Your task to perform on an android device: Open sound settings Image 0: 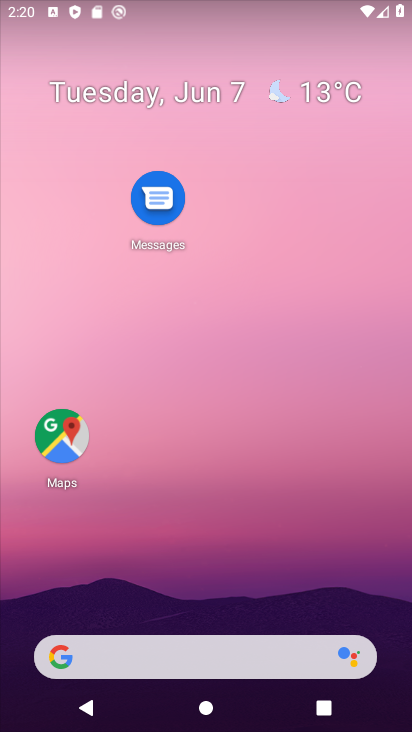
Step 0: drag from (169, 621) to (138, 118)
Your task to perform on an android device: Open sound settings Image 1: 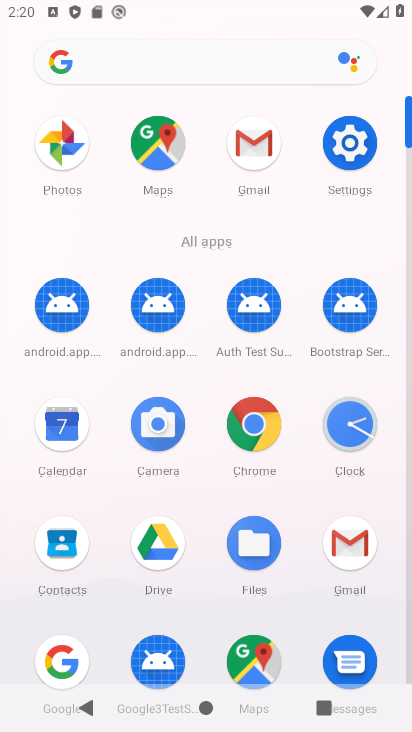
Step 1: click (340, 149)
Your task to perform on an android device: Open sound settings Image 2: 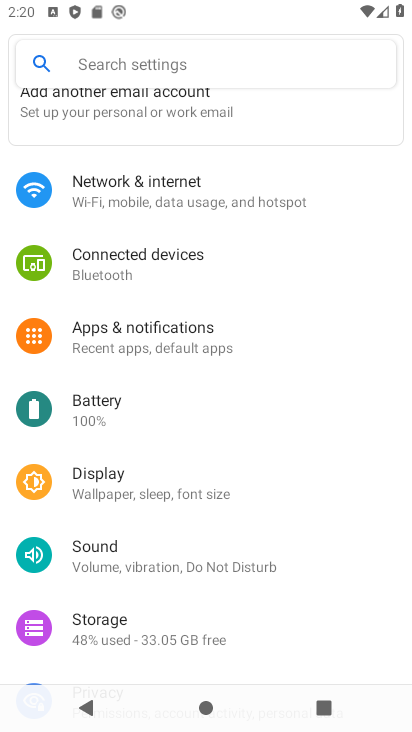
Step 2: click (131, 573)
Your task to perform on an android device: Open sound settings Image 3: 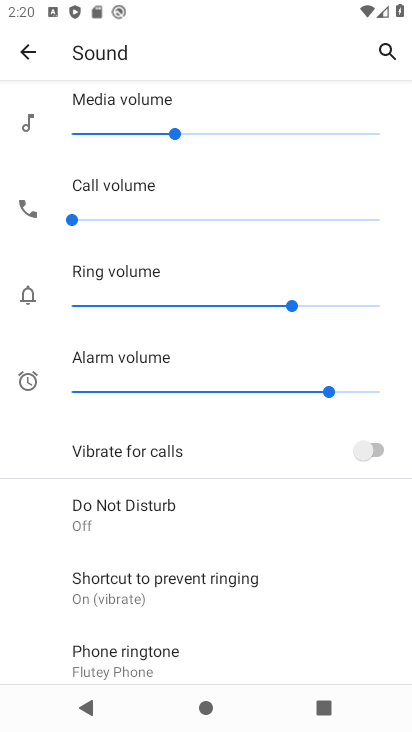
Step 3: task complete